Your task to perform on an android device: open app "Pluto TV - Live TV and Movies" (install if not already installed) and enter user name: "wools@yahoo.com" and password: "misplacing" Image 0: 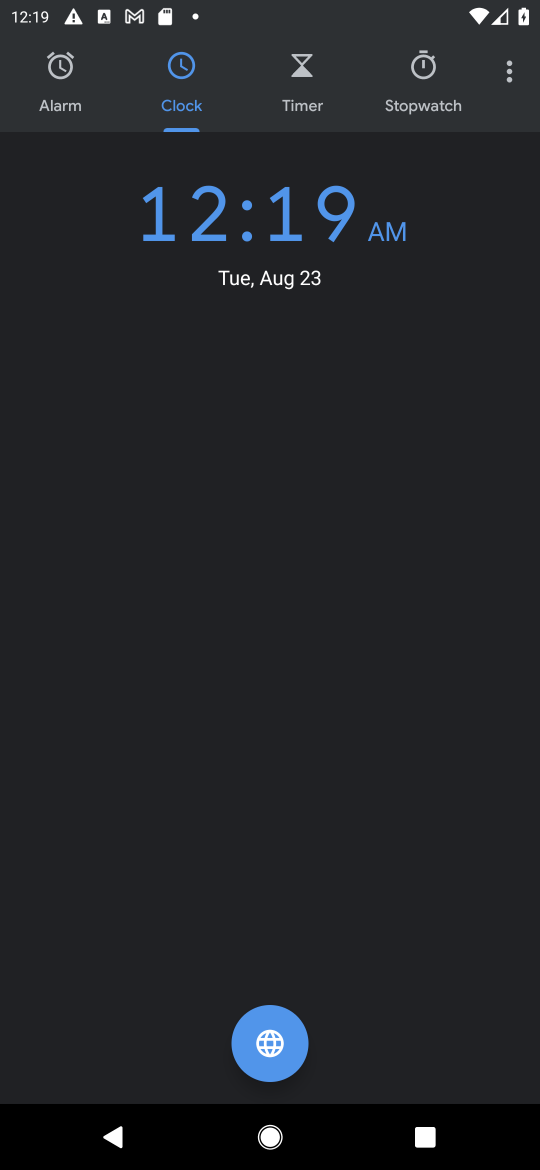
Step 0: press home button
Your task to perform on an android device: open app "Pluto TV - Live TV and Movies" (install if not already installed) and enter user name: "wools@yahoo.com" and password: "misplacing" Image 1: 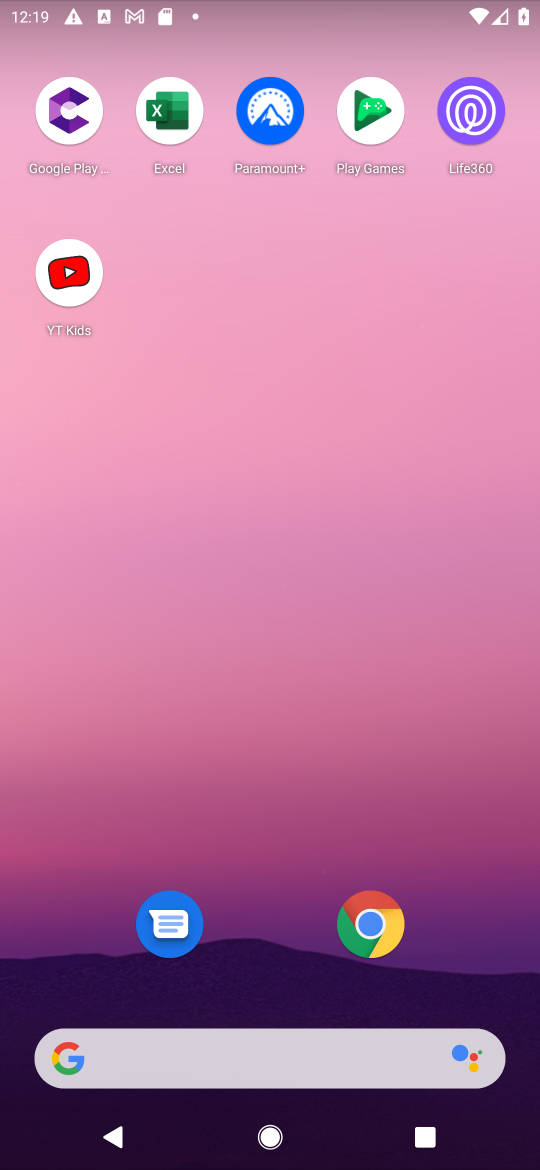
Step 1: drag from (454, 978) to (487, 161)
Your task to perform on an android device: open app "Pluto TV - Live TV and Movies" (install if not already installed) and enter user name: "wools@yahoo.com" and password: "misplacing" Image 2: 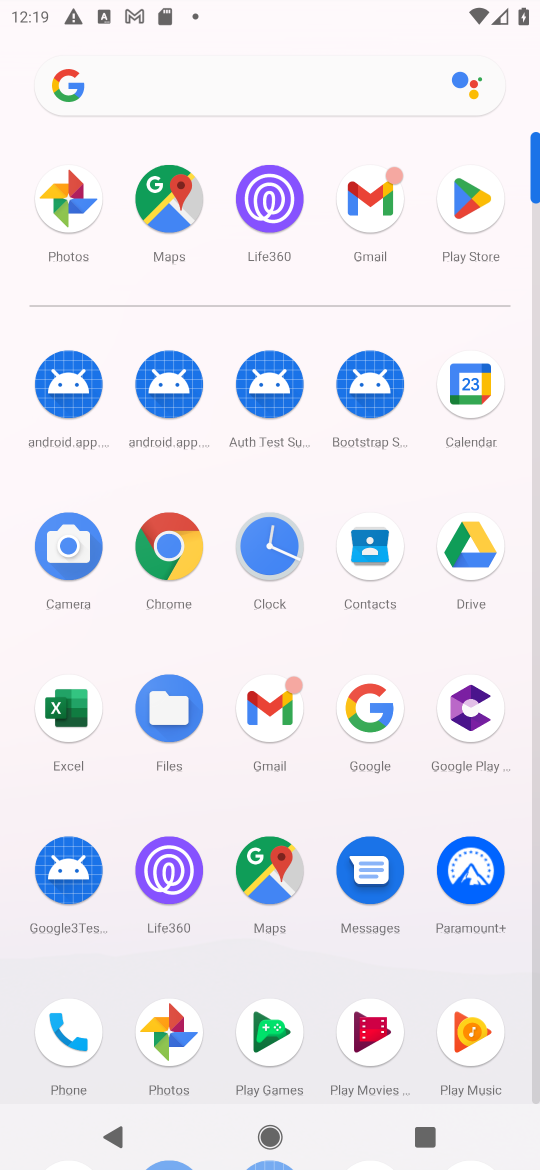
Step 2: click (464, 201)
Your task to perform on an android device: open app "Pluto TV - Live TV and Movies" (install if not already installed) and enter user name: "wools@yahoo.com" and password: "misplacing" Image 3: 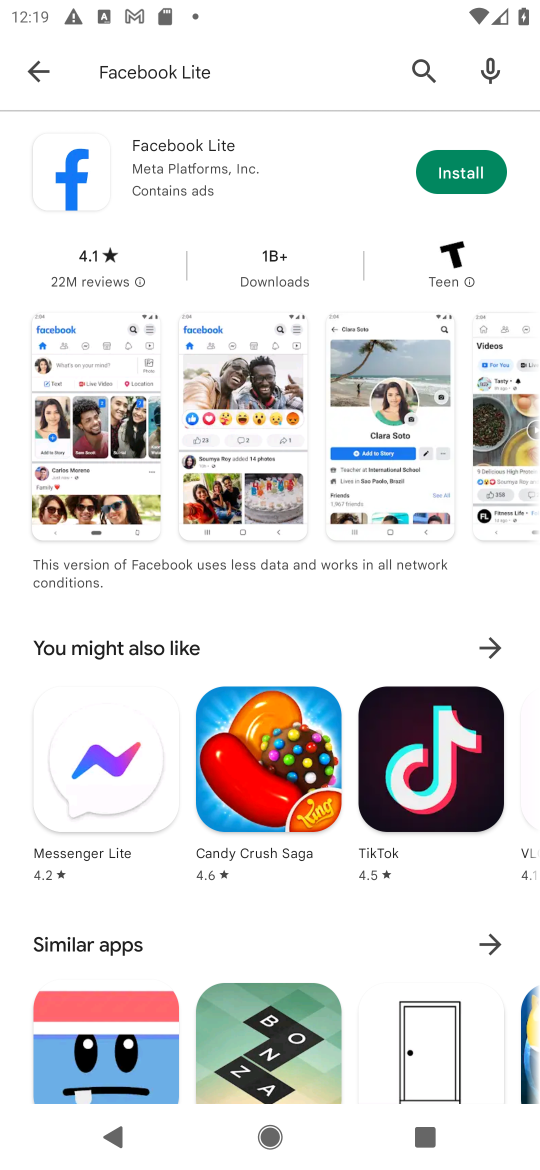
Step 3: press back button
Your task to perform on an android device: open app "Pluto TV - Live TV and Movies" (install if not already installed) and enter user name: "wools@yahoo.com" and password: "misplacing" Image 4: 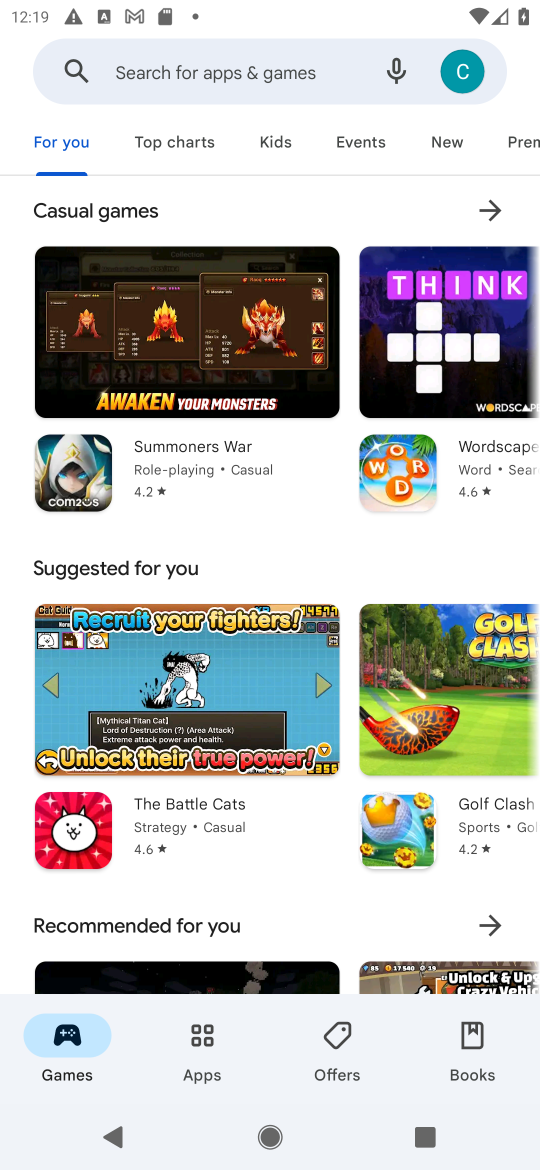
Step 4: click (178, 76)
Your task to perform on an android device: open app "Pluto TV - Live TV and Movies" (install if not already installed) and enter user name: "wools@yahoo.com" and password: "misplacing" Image 5: 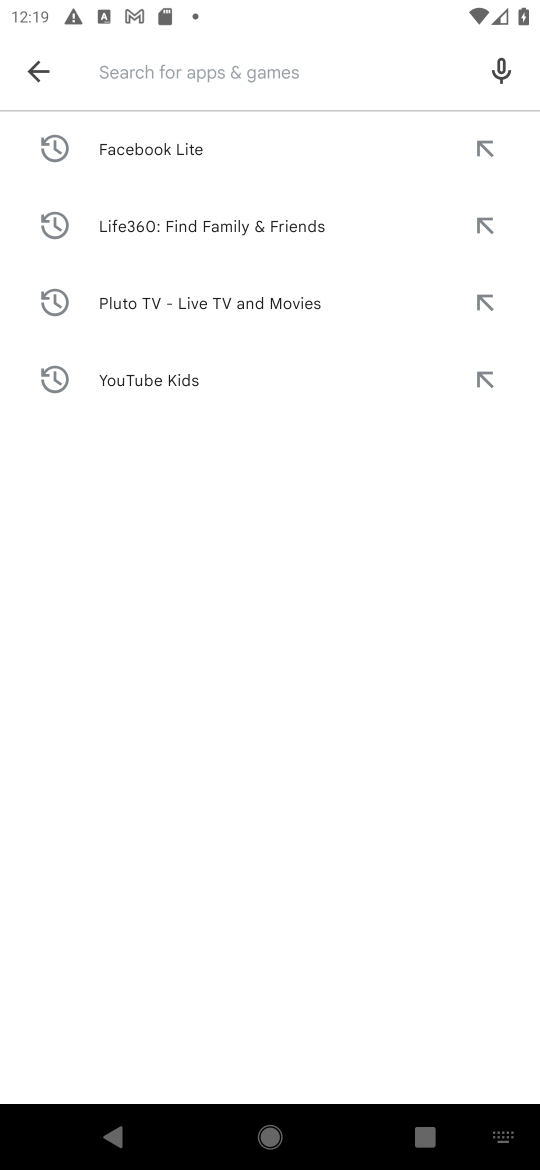
Step 5: press enter
Your task to perform on an android device: open app "Pluto TV - Live TV and Movies" (install if not already installed) and enter user name: "wools@yahoo.com" and password: "misplacing" Image 6: 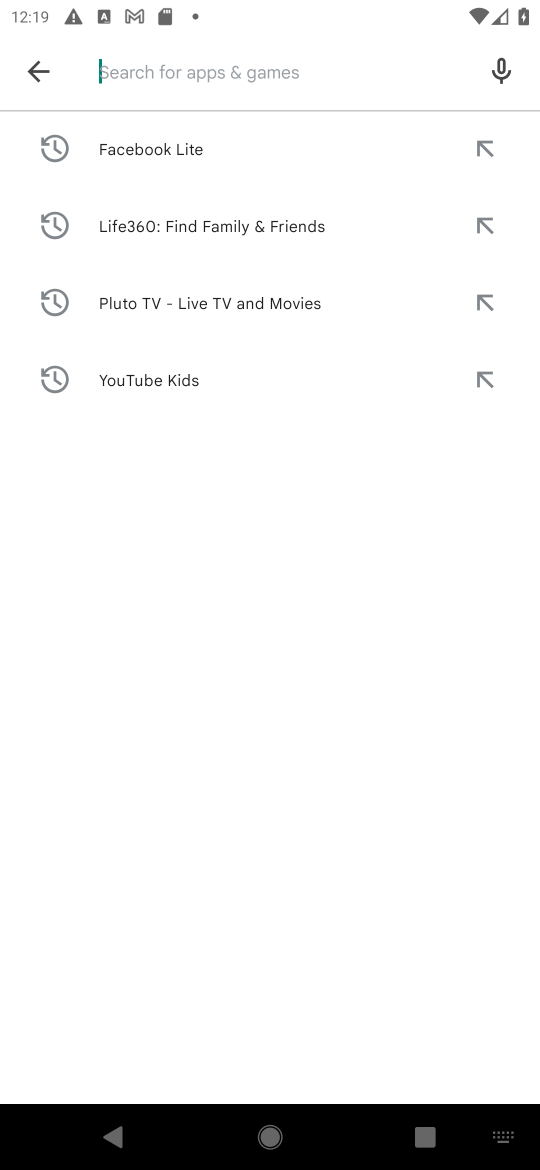
Step 6: type "Pluto TV - Live TV and Movies"
Your task to perform on an android device: open app "Pluto TV - Live TV and Movies" (install if not already installed) and enter user name: "wools@yahoo.com" and password: "misplacing" Image 7: 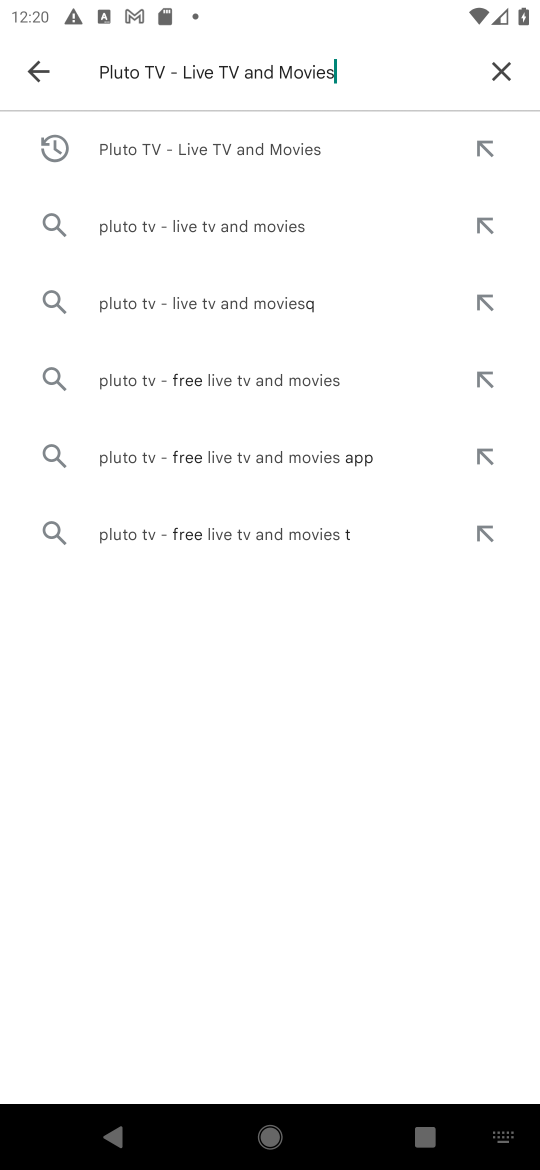
Step 7: click (247, 154)
Your task to perform on an android device: open app "Pluto TV - Live TV and Movies" (install if not already installed) and enter user name: "wools@yahoo.com" and password: "misplacing" Image 8: 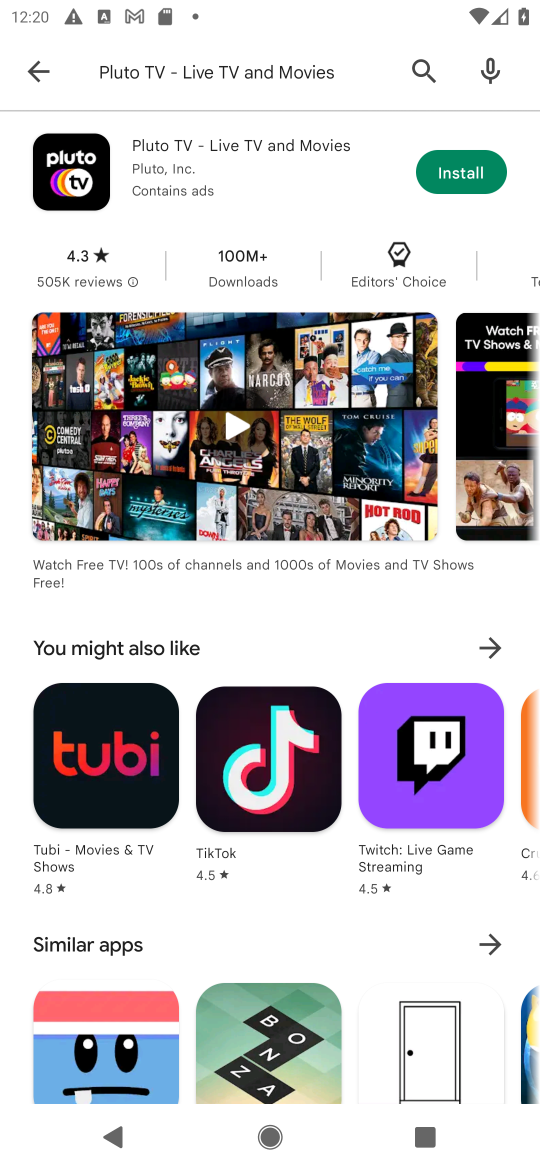
Step 8: click (464, 175)
Your task to perform on an android device: open app "Pluto TV - Live TV and Movies" (install if not already installed) and enter user name: "wools@yahoo.com" and password: "misplacing" Image 9: 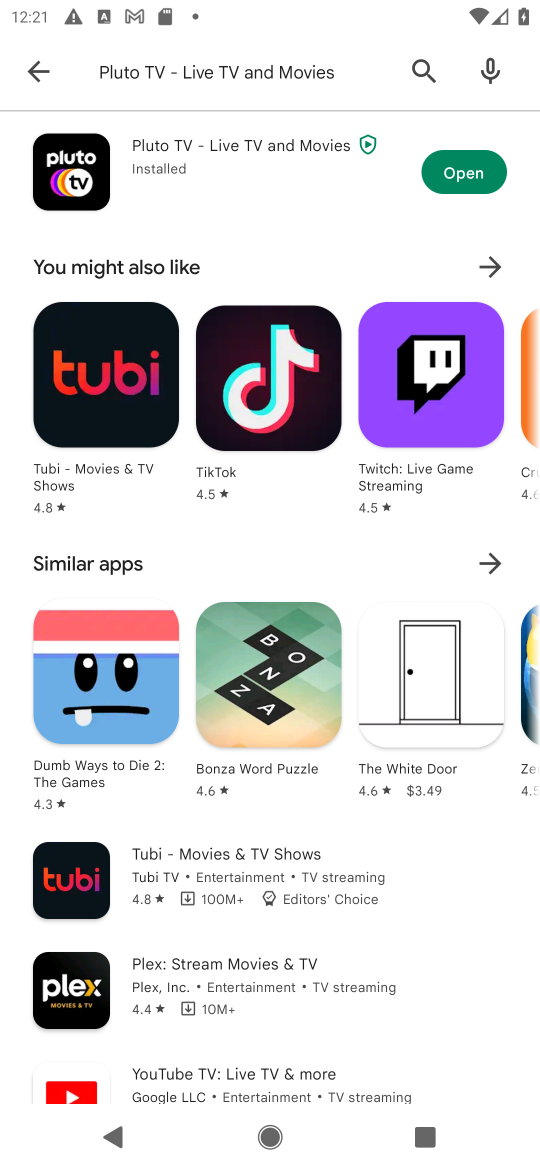
Step 9: click (486, 163)
Your task to perform on an android device: open app "Pluto TV - Live TV and Movies" (install if not already installed) and enter user name: "wools@yahoo.com" and password: "misplacing" Image 10: 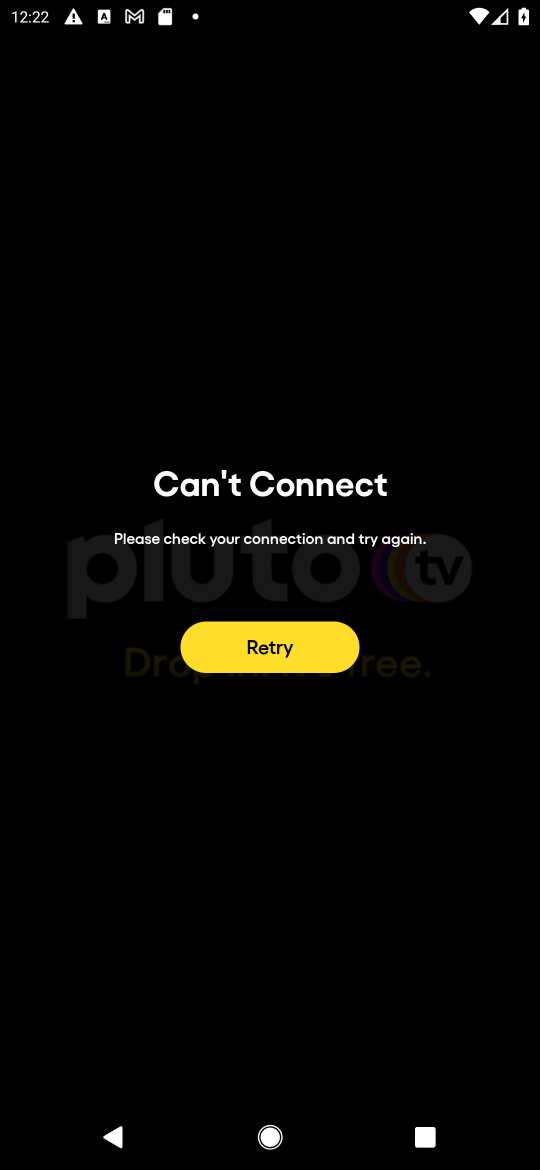
Step 10: task complete